Your task to perform on an android device: toggle wifi Image 0: 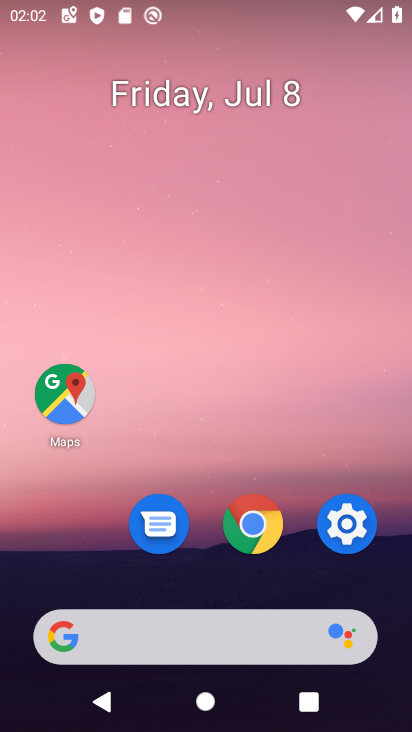
Step 0: click (331, 530)
Your task to perform on an android device: toggle wifi Image 1: 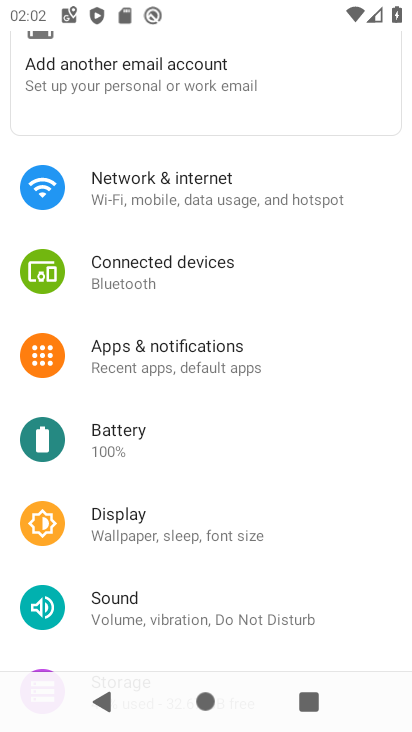
Step 1: click (178, 195)
Your task to perform on an android device: toggle wifi Image 2: 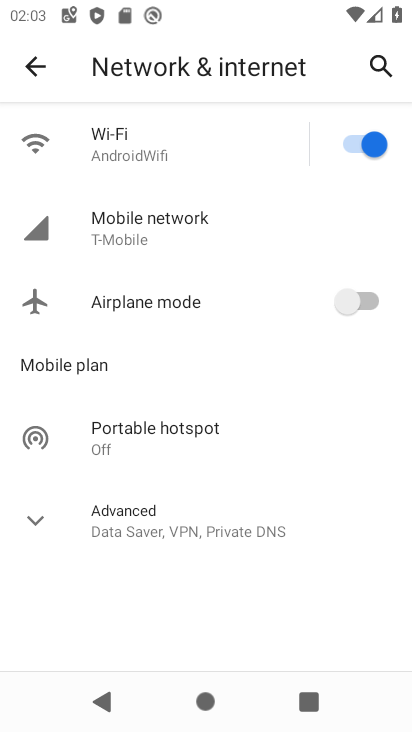
Step 2: click (150, 152)
Your task to perform on an android device: toggle wifi Image 3: 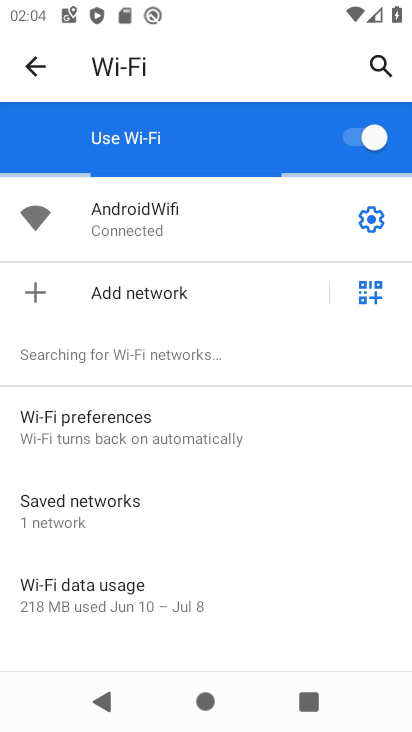
Step 3: task complete